Your task to perform on an android device: Go to location settings Image 0: 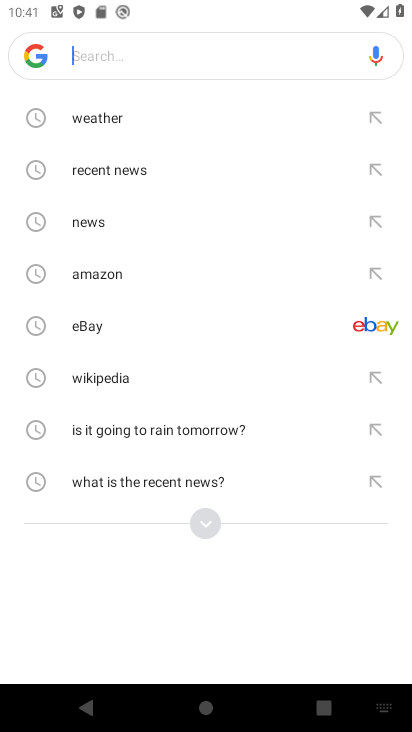
Step 0: press back button
Your task to perform on an android device: Go to location settings Image 1: 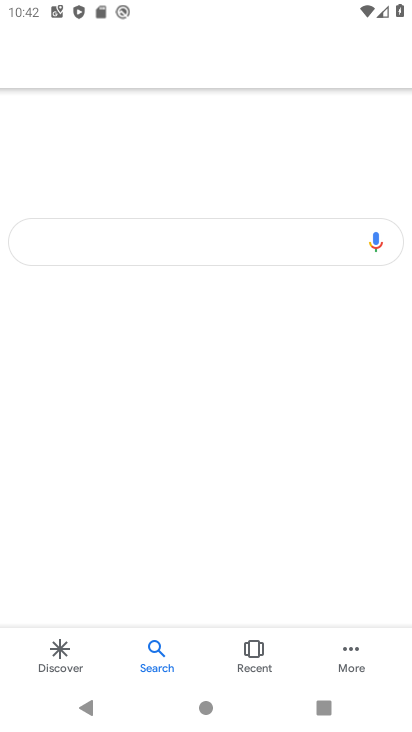
Step 1: press back button
Your task to perform on an android device: Go to location settings Image 2: 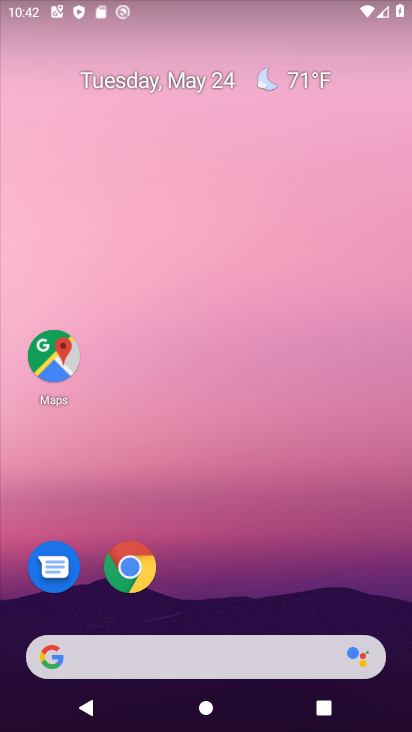
Step 2: drag from (331, 347) to (335, 246)
Your task to perform on an android device: Go to location settings Image 3: 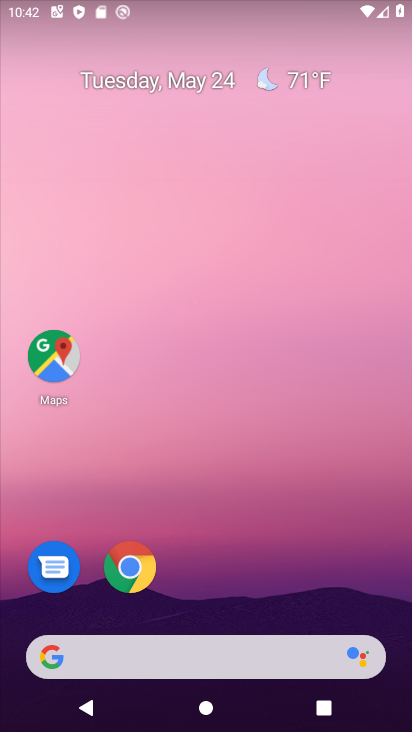
Step 3: drag from (400, 683) to (359, 147)
Your task to perform on an android device: Go to location settings Image 4: 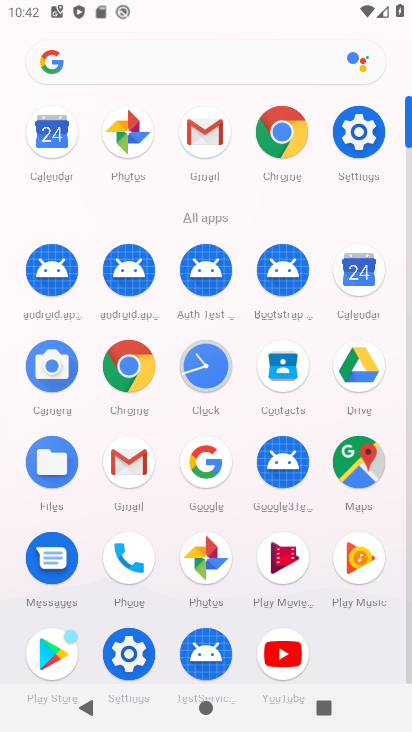
Step 4: click (371, 135)
Your task to perform on an android device: Go to location settings Image 5: 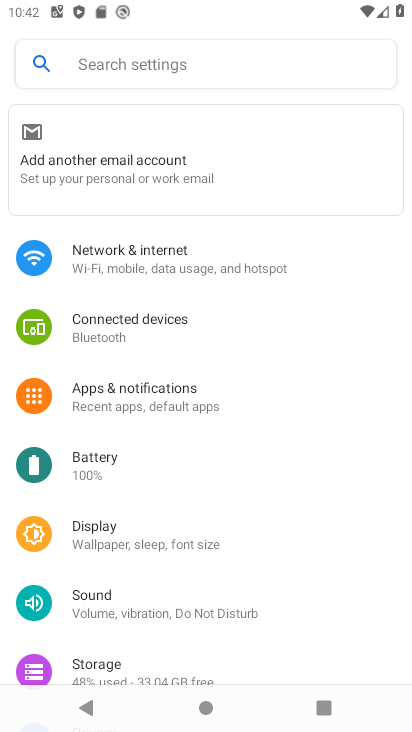
Step 5: drag from (314, 622) to (306, 281)
Your task to perform on an android device: Go to location settings Image 6: 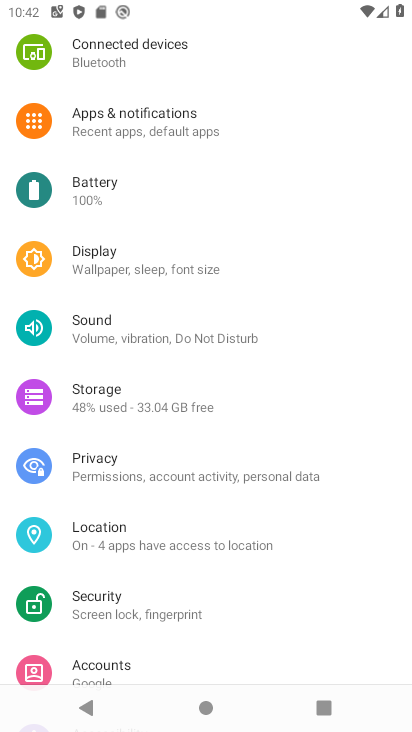
Step 6: click (86, 527)
Your task to perform on an android device: Go to location settings Image 7: 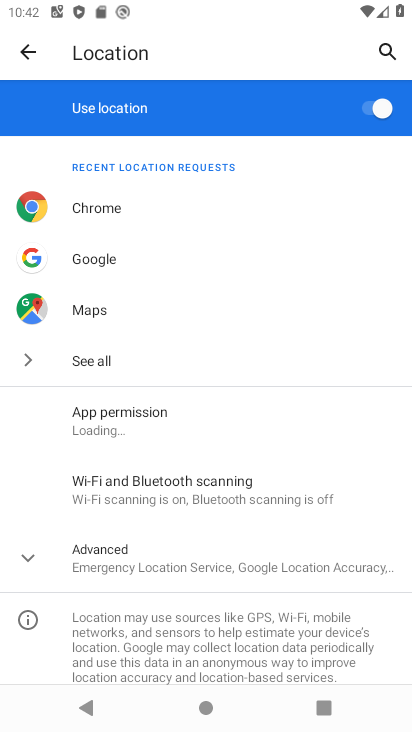
Step 7: task complete